Your task to perform on an android device: turn off airplane mode Image 0: 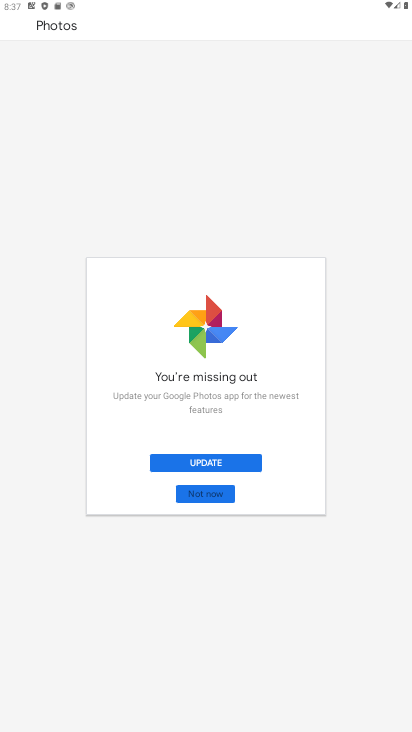
Step 0: drag from (321, 0) to (332, 377)
Your task to perform on an android device: turn off airplane mode Image 1: 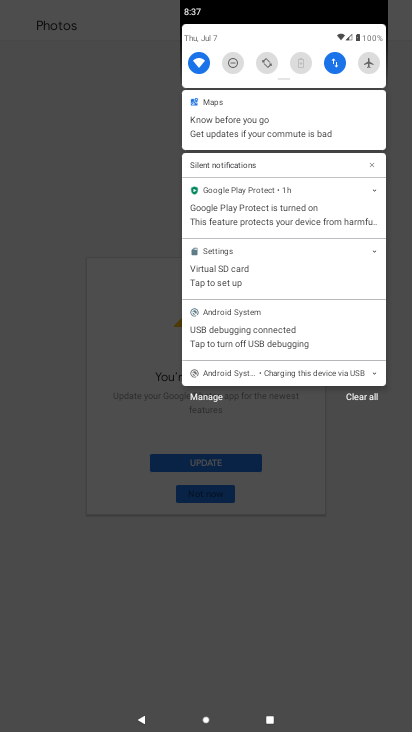
Step 1: task complete